Your task to perform on an android device: turn off notifications in google photos Image 0: 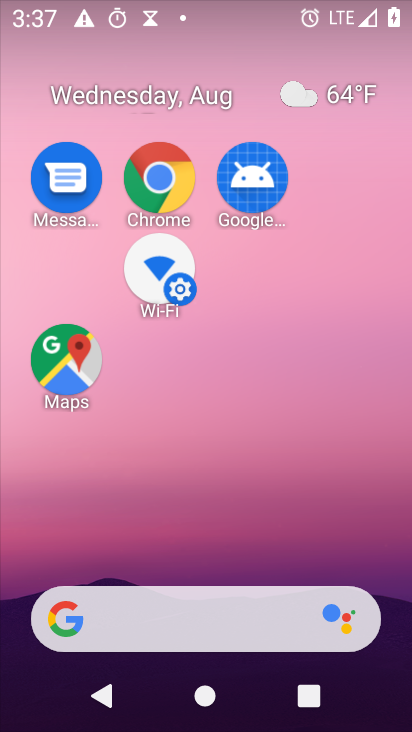
Step 0: press home button
Your task to perform on an android device: turn off notifications in google photos Image 1: 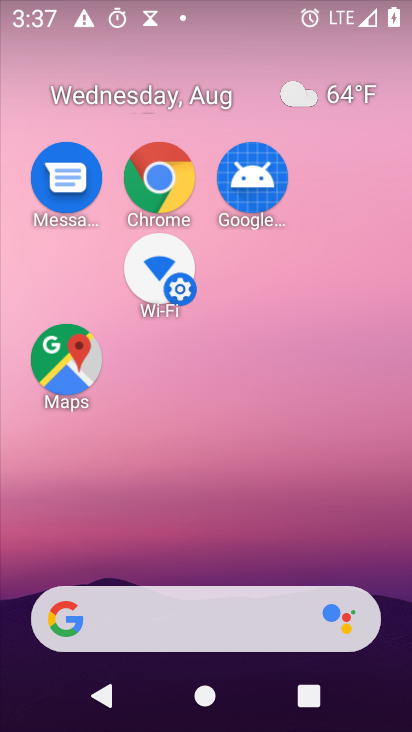
Step 1: drag from (251, 425) to (258, 11)
Your task to perform on an android device: turn off notifications in google photos Image 2: 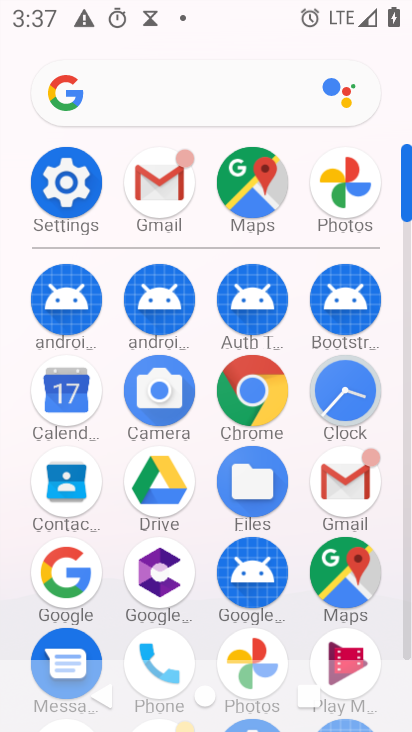
Step 2: click (255, 643)
Your task to perform on an android device: turn off notifications in google photos Image 3: 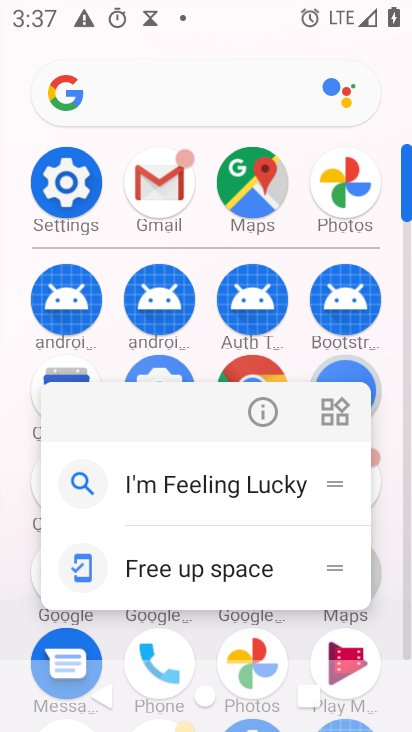
Step 3: click (255, 643)
Your task to perform on an android device: turn off notifications in google photos Image 4: 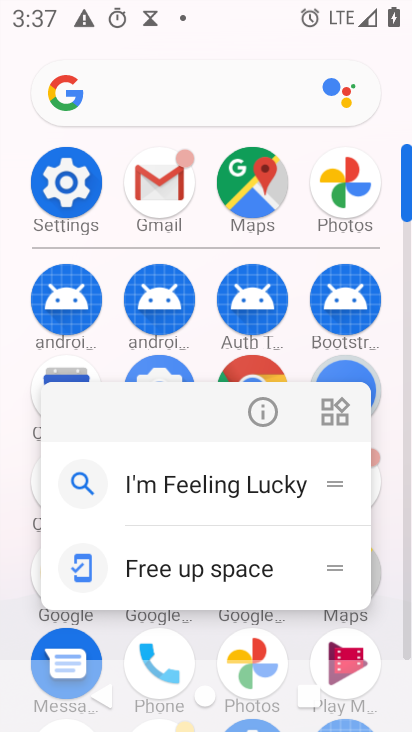
Step 4: click (255, 643)
Your task to perform on an android device: turn off notifications in google photos Image 5: 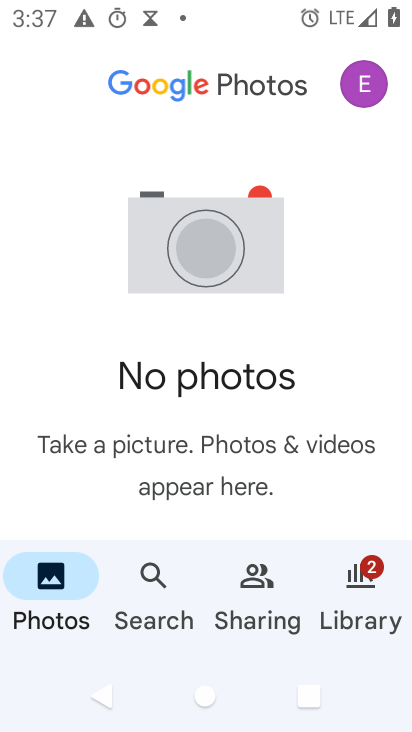
Step 5: click (377, 88)
Your task to perform on an android device: turn off notifications in google photos Image 6: 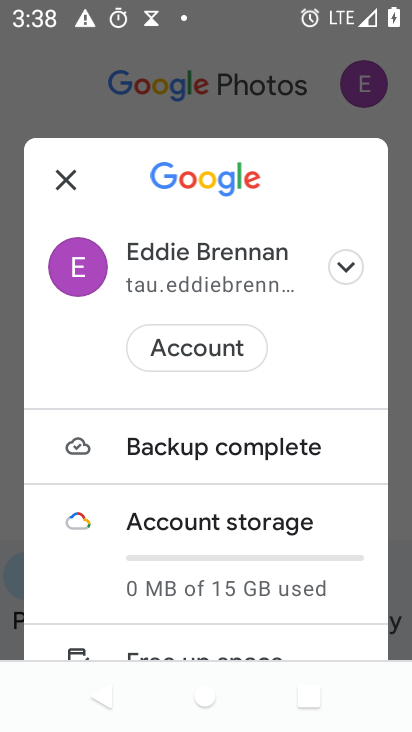
Step 6: drag from (308, 649) to (178, 6)
Your task to perform on an android device: turn off notifications in google photos Image 7: 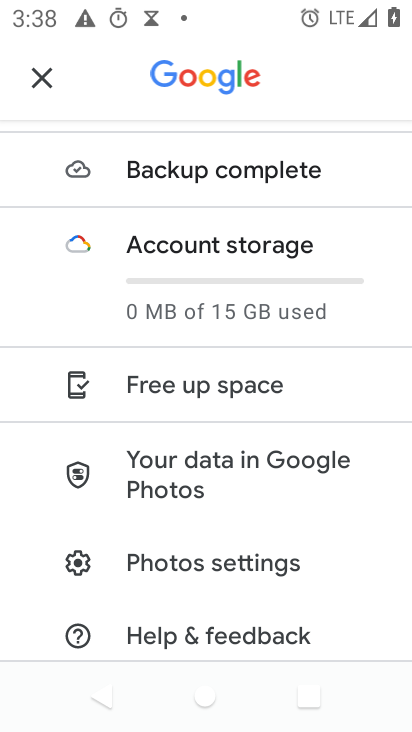
Step 7: click (208, 569)
Your task to perform on an android device: turn off notifications in google photos Image 8: 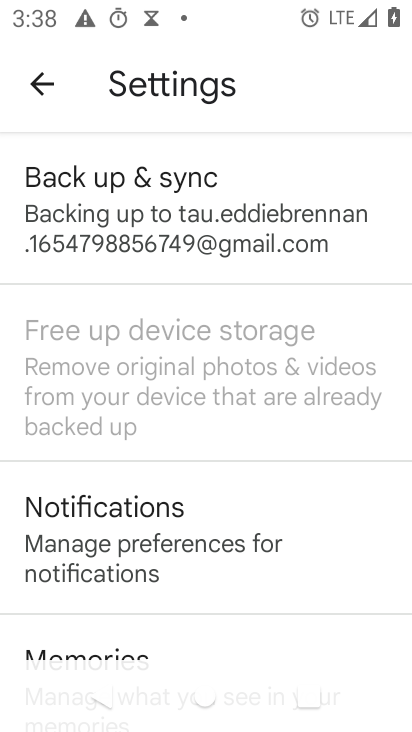
Step 8: click (82, 514)
Your task to perform on an android device: turn off notifications in google photos Image 9: 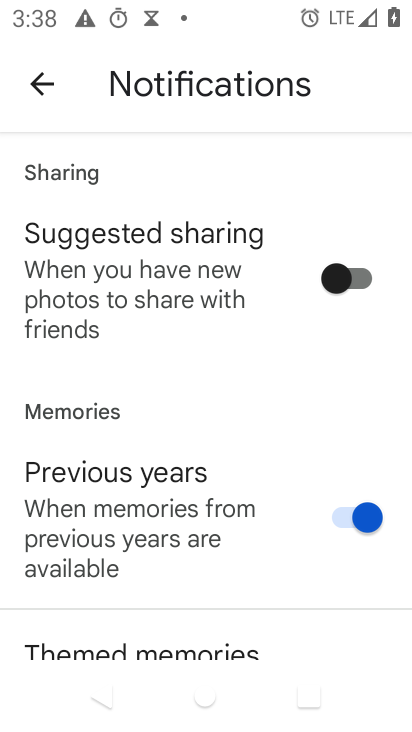
Step 9: task complete